Your task to perform on an android device: Find coffee shops on Maps Image 0: 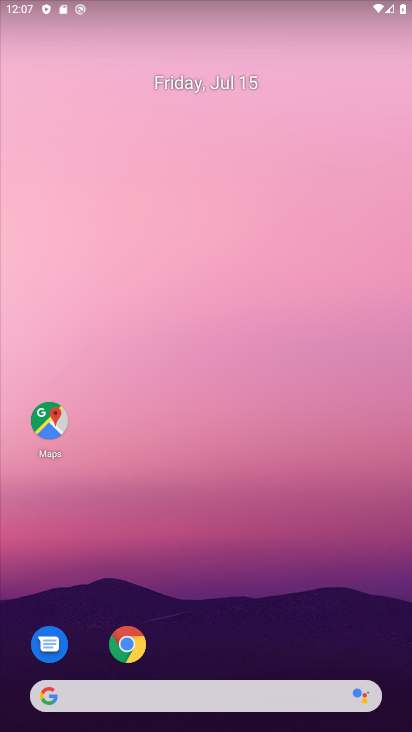
Step 0: drag from (368, 648) to (272, 32)
Your task to perform on an android device: Find coffee shops on Maps Image 1: 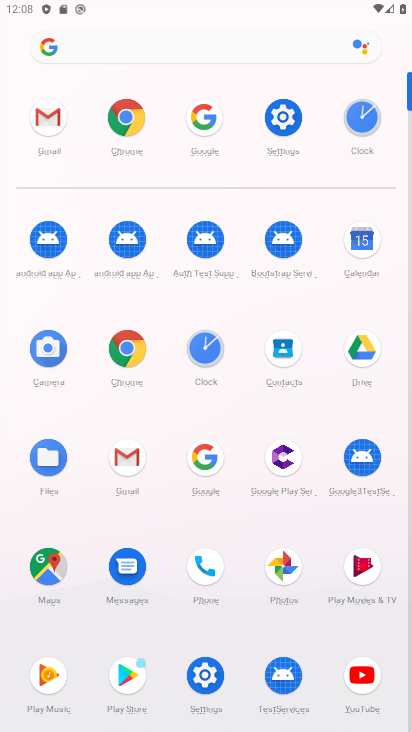
Step 1: click (41, 549)
Your task to perform on an android device: Find coffee shops on Maps Image 2: 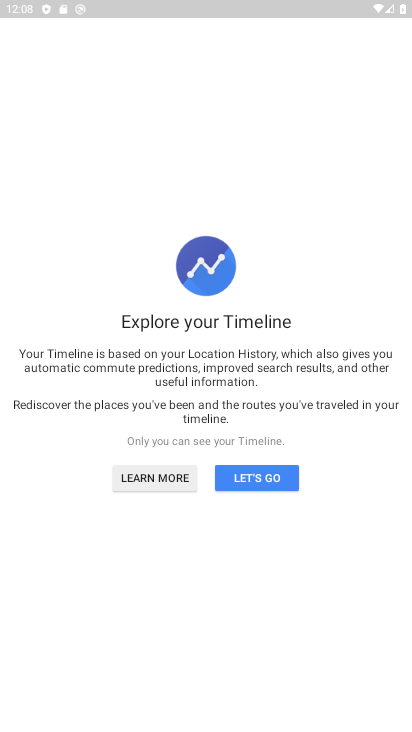
Step 2: press back button
Your task to perform on an android device: Find coffee shops on Maps Image 3: 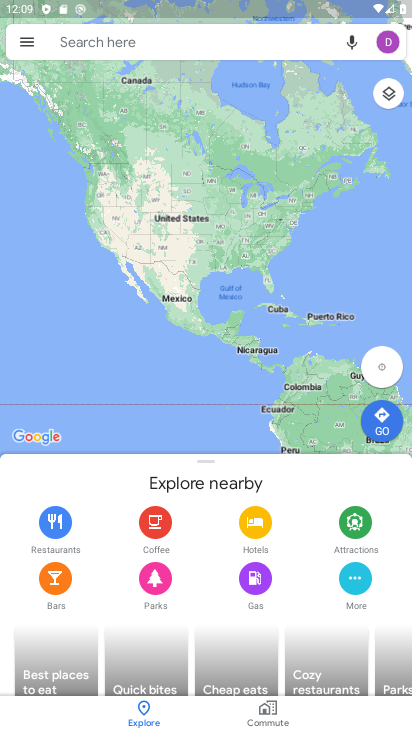
Step 3: click (98, 48)
Your task to perform on an android device: Find coffee shops on Maps Image 4: 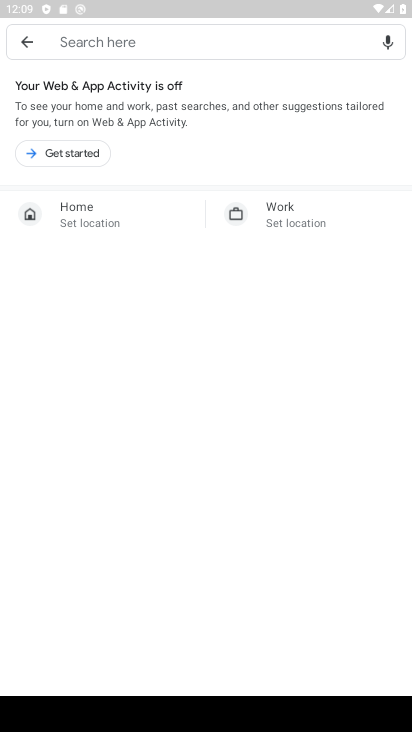
Step 4: click (60, 156)
Your task to perform on an android device: Find coffee shops on Maps Image 5: 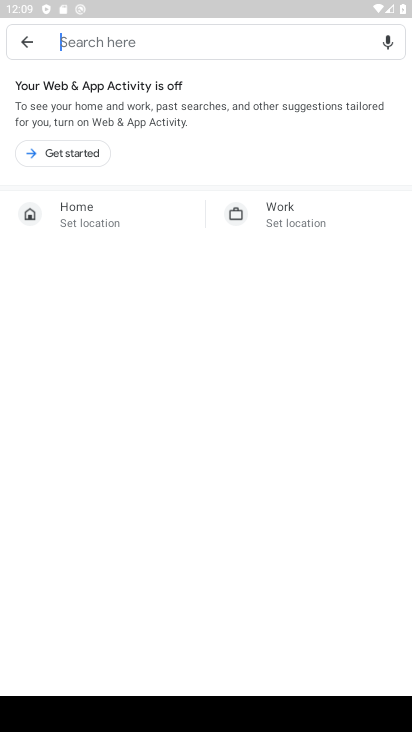
Step 5: click (61, 155)
Your task to perform on an android device: Find coffee shops on Maps Image 6: 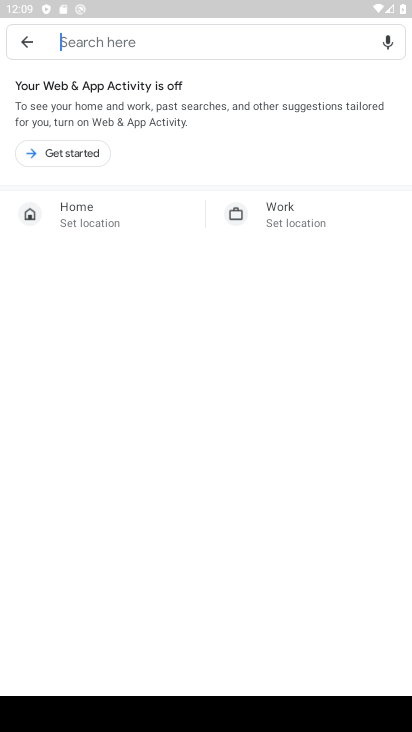
Step 6: click (79, 155)
Your task to perform on an android device: Find coffee shops on Maps Image 7: 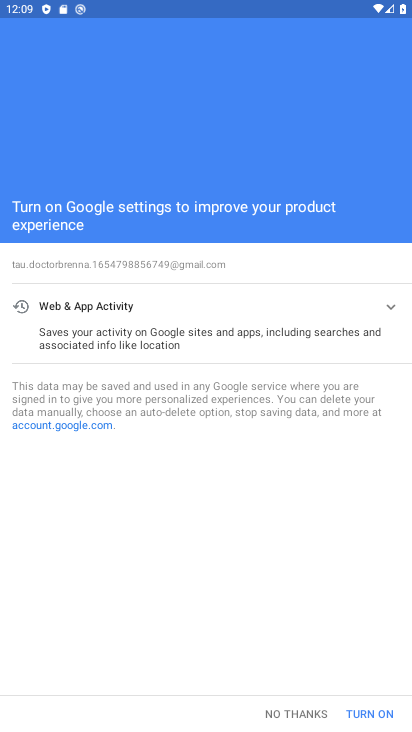
Step 7: click (372, 711)
Your task to perform on an android device: Find coffee shops on Maps Image 8: 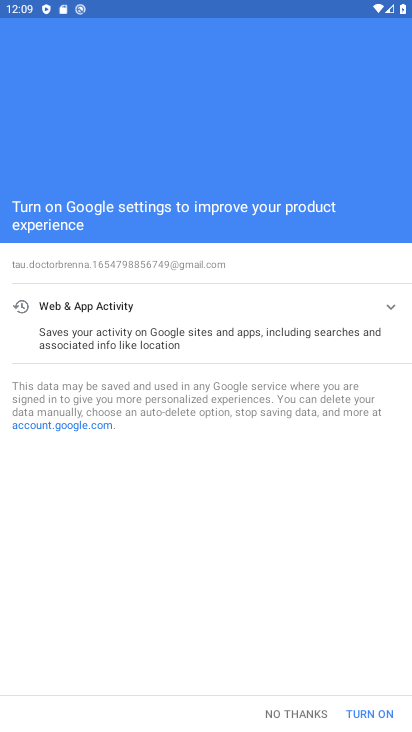
Step 8: click (371, 715)
Your task to perform on an android device: Find coffee shops on Maps Image 9: 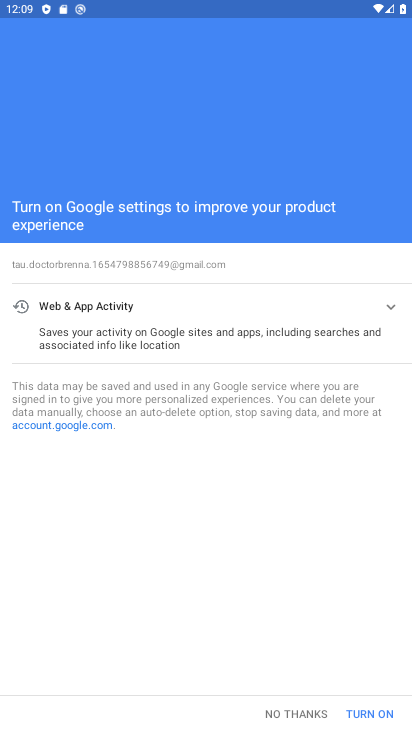
Step 9: click (370, 719)
Your task to perform on an android device: Find coffee shops on Maps Image 10: 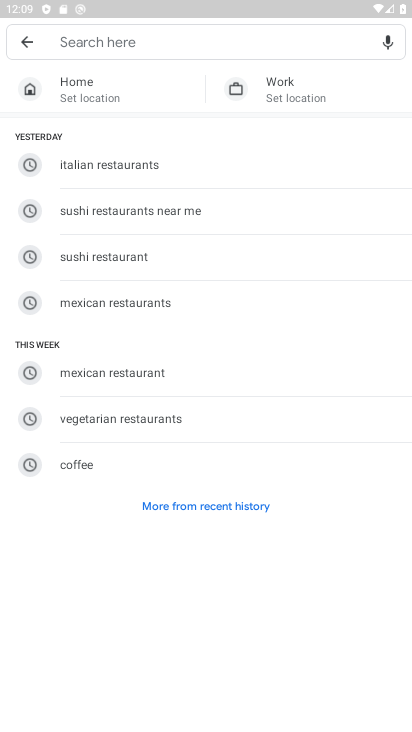
Step 10: click (98, 462)
Your task to perform on an android device: Find coffee shops on Maps Image 11: 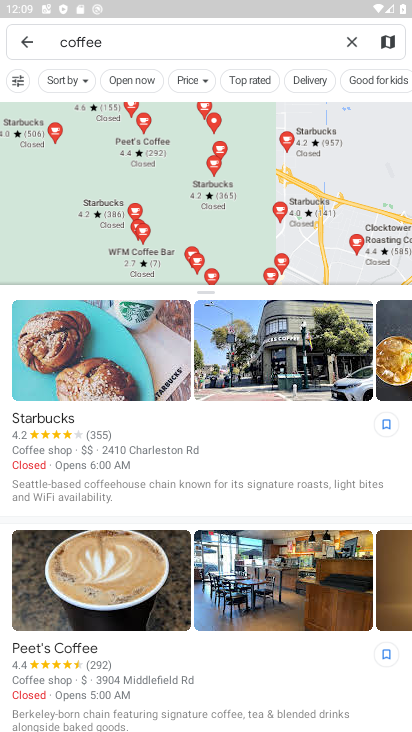
Step 11: task complete